Your task to perform on an android device: turn on the 24-hour format for clock Image 0: 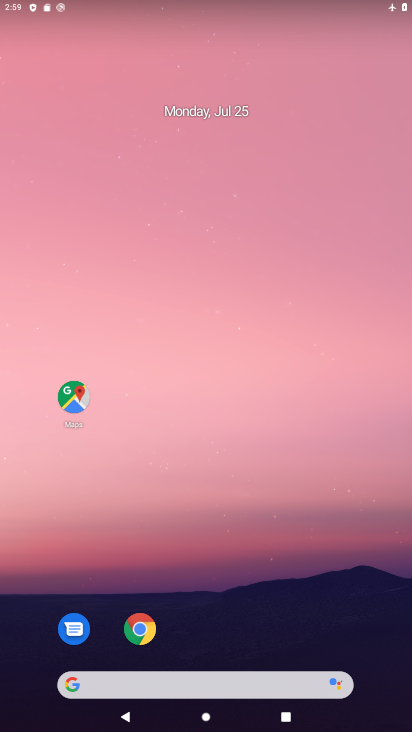
Step 0: drag from (277, 660) to (269, 16)
Your task to perform on an android device: turn on the 24-hour format for clock Image 1: 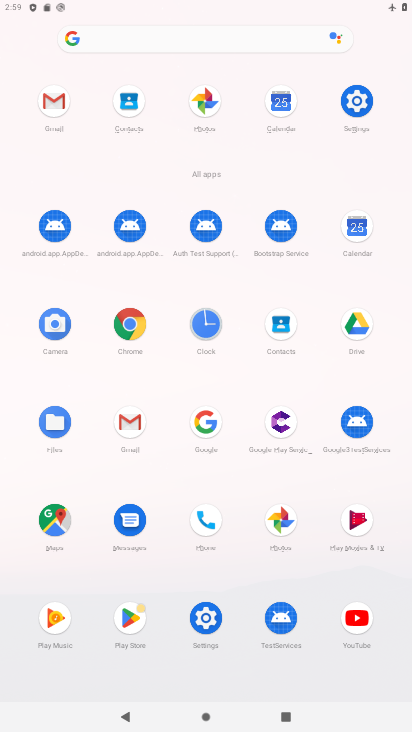
Step 1: click (210, 323)
Your task to perform on an android device: turn on the 24-hour format for clock Image 2: 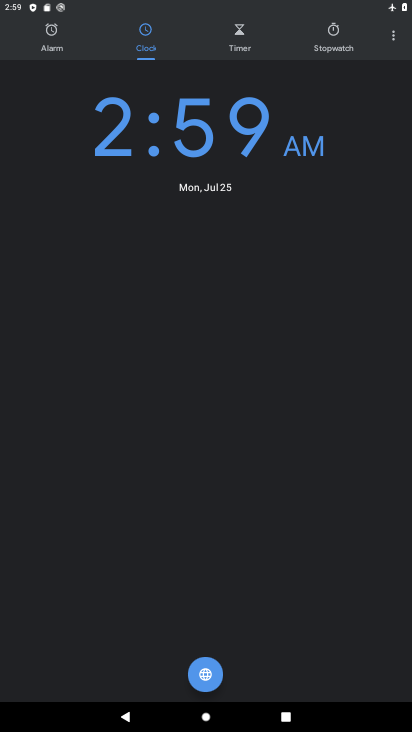
Step 2: click (393, 36)
Your task to perform on an android device: turn on the 24-hour format for clock Image 3: 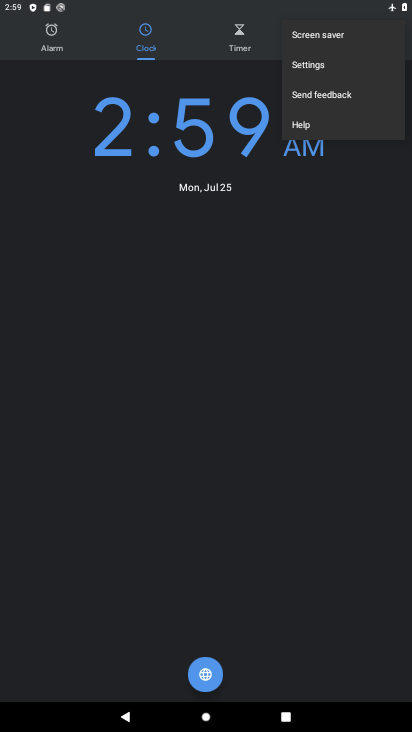
Step 3: click (312, 74)
Your task to perform on an android device: turn on the 24-hour format for clock Image 4: 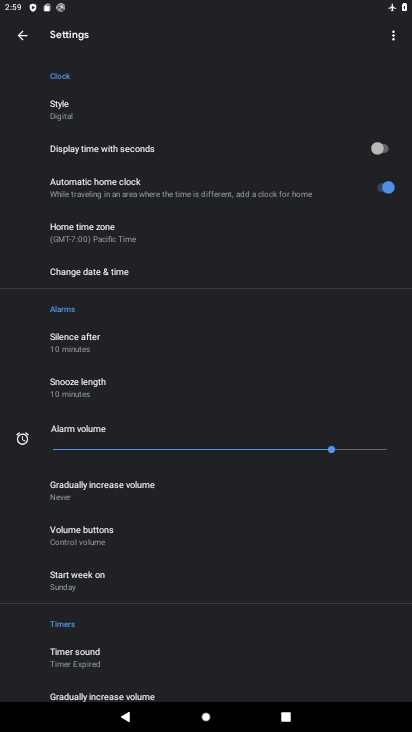
Step 4: click (98, 268)
Your task to perform on an android device: turn on the 24-hour format for clock Image 5: 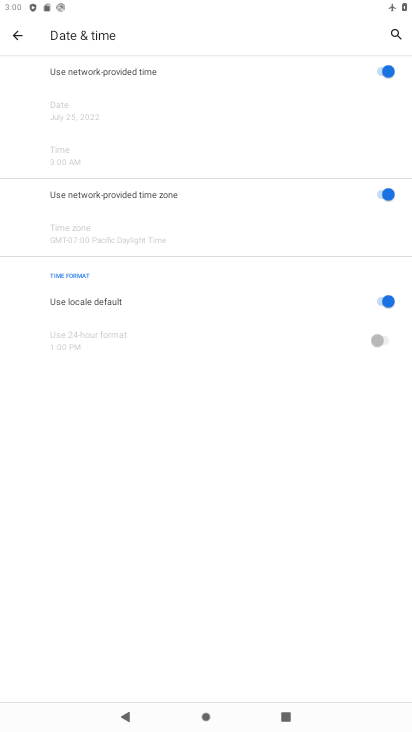
Step 5: click (391, 303)
Your task to perform on an android device: turn on the 24-hour format for clock Image 6: 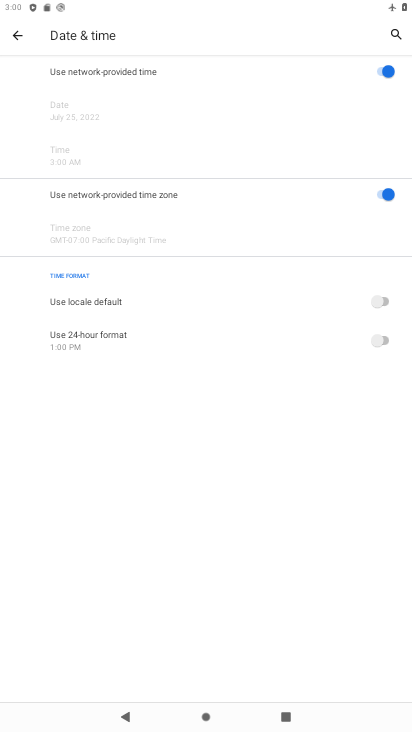
Step 6: click (382, 345)
Your task to perform on an android device: turn on the 24-hour format for clock Image 7: 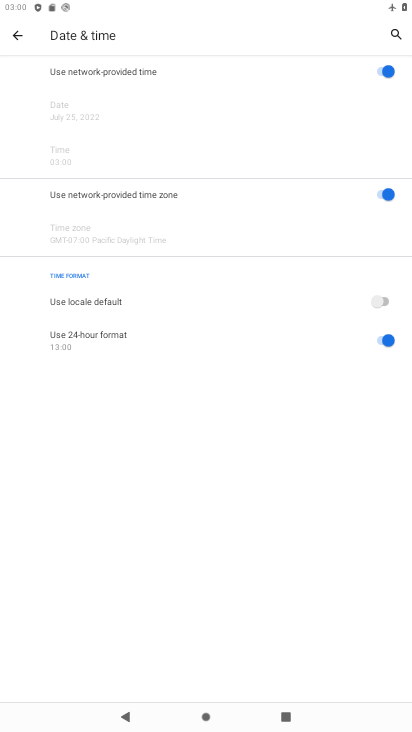
Step 7: task complete